Your task to perform on an android device: Open battery settings Image 0: 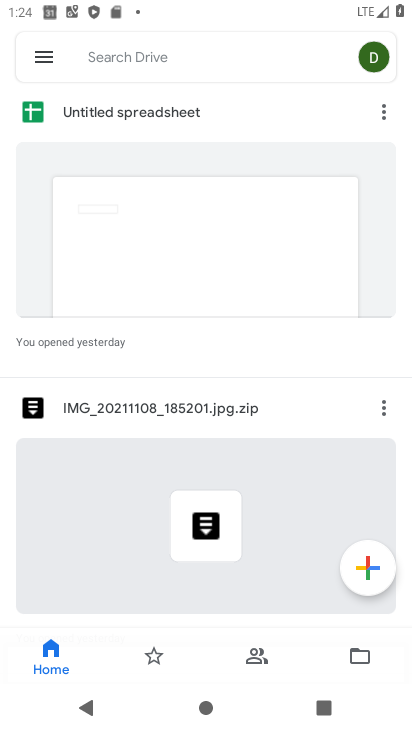
Step 0: press home button
Your task to perform on an android device: Open battery settings Image 1: 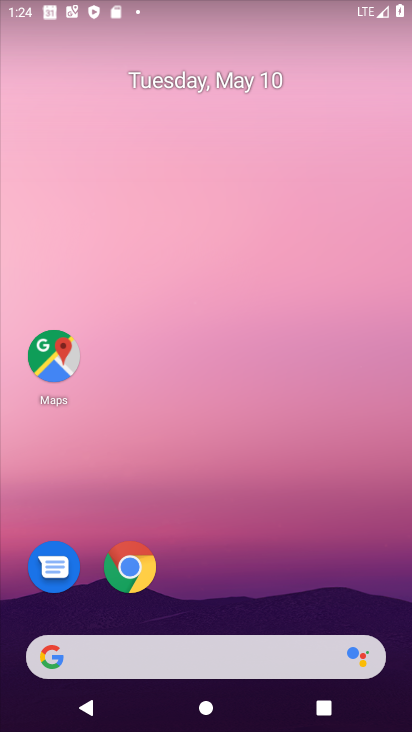
Step 1: drag from (404, 634) to (235, 95)
Your task to perform on an android device: Open battery settings Image 2: 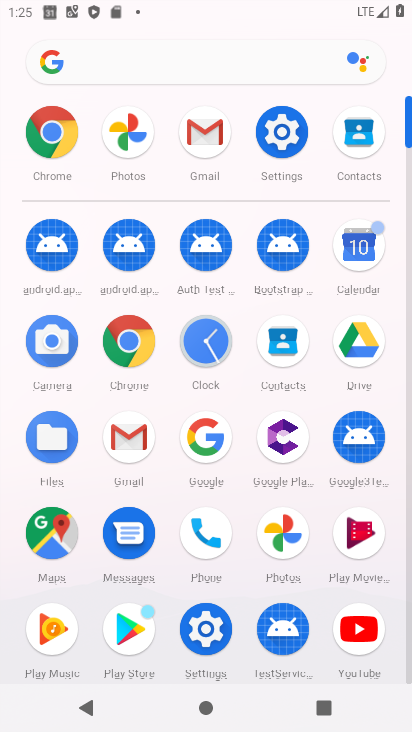
Step 2: click (211, 622)
Your task to perform on an android device: Open battery settings Image 3: 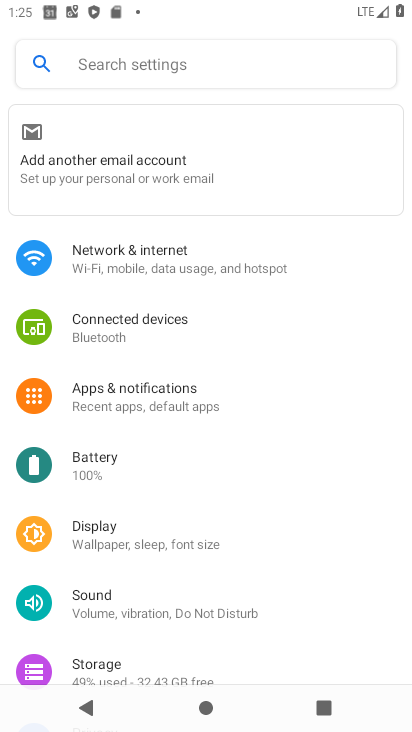
Step 3: click (104, 455)
Your task to perform on an android device: Open battery settings Image 4: 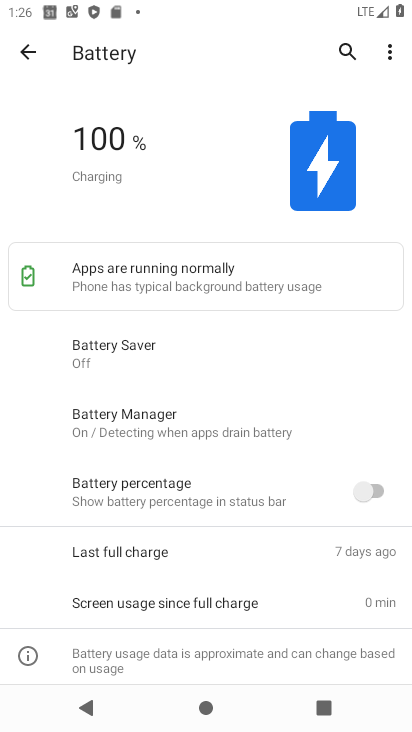
Step 4: task complete